Your task to perform on an android device: Open Maps and search for coffee Image 0: 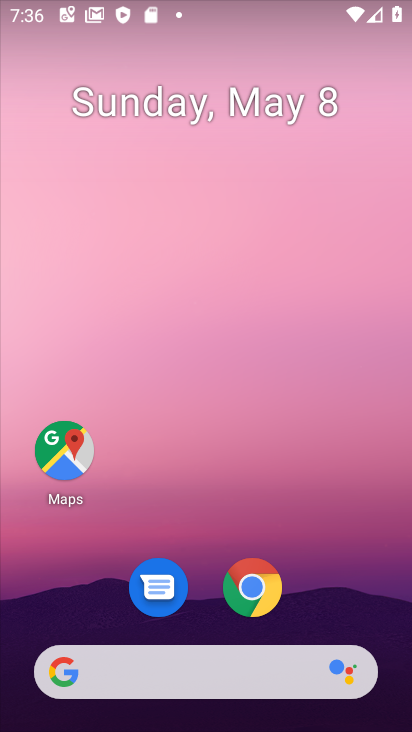
Step 0: click (64, 453)
Your task to perform on an android device: Open Maps and search for coffee Image 1: 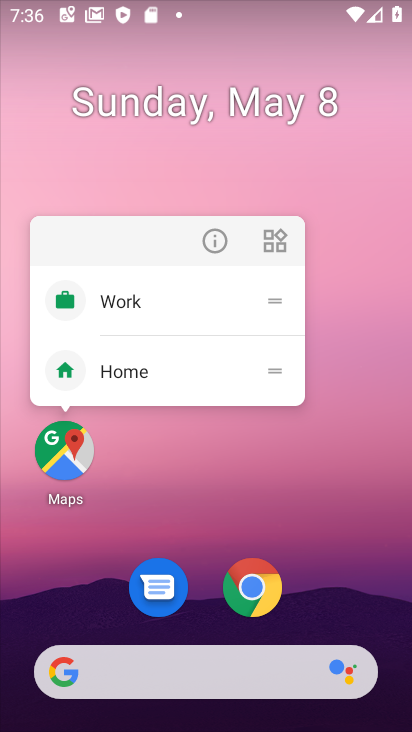
Step 1: click (60, 450)
Your task to perform on an android device: Open Maps and search for coffee Image 2: 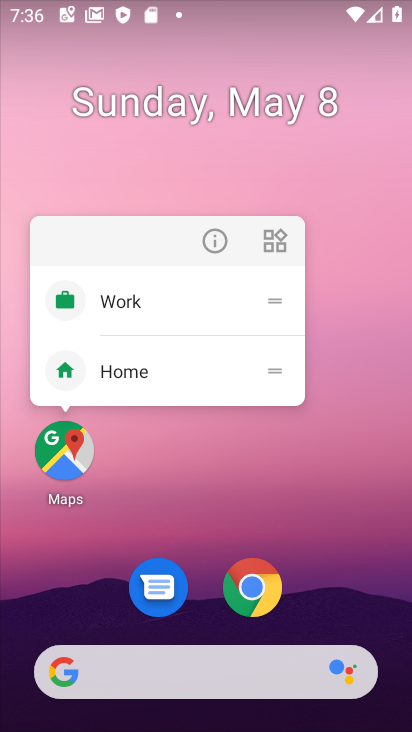
Step 2: click (65, 451)
Your task to perform on an android device: Open Maps and search for coffee Image 3: 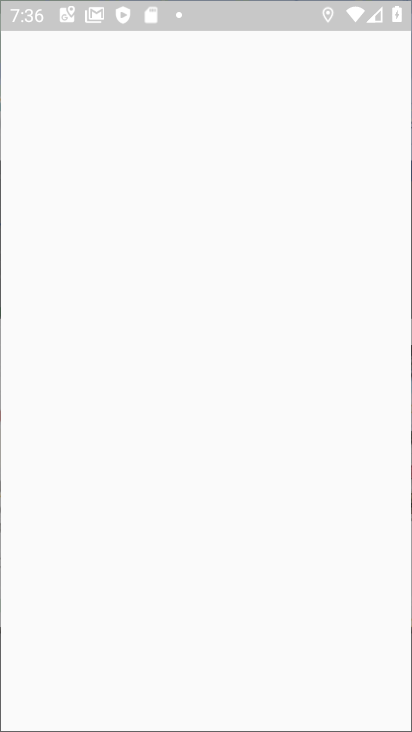
Step 3: click (310, 71)
Your task to perform on an android device: Open Maps and search for coffee Image 4: 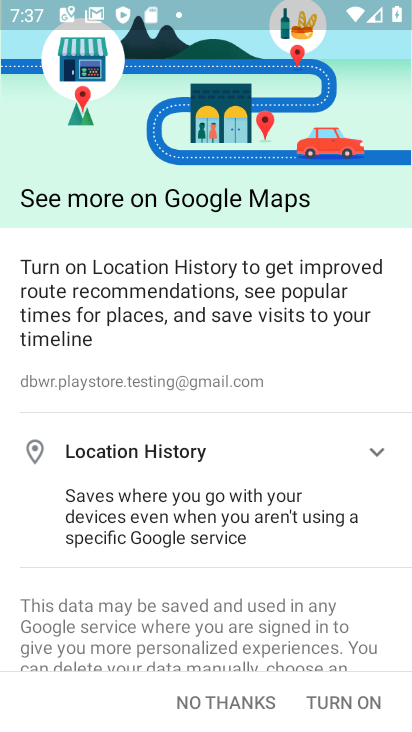
Step 4: click (245, 697)
Your task to perform on an android device: Open Maps and search for coffee Image 5: 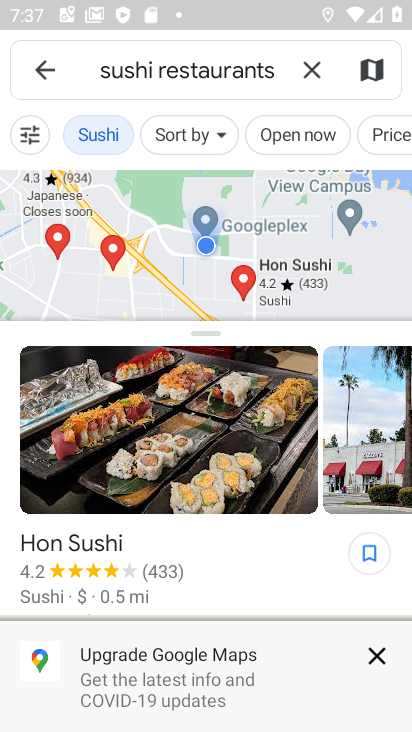
Step 5: click (312, 66)
Your task to perform on an android device: Open Maps and search for coffee Image 6: 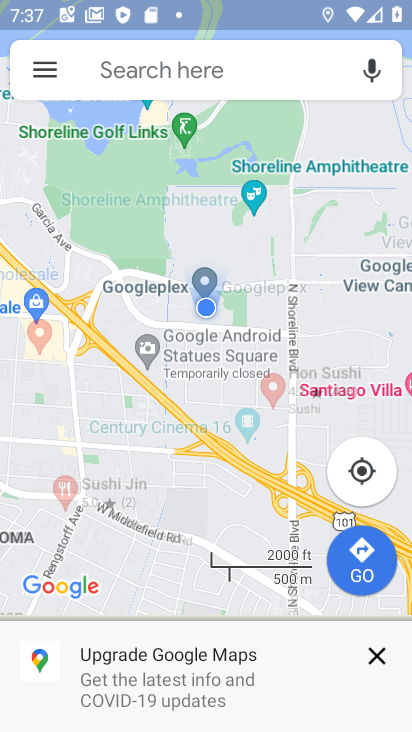
Step 6: click (213, 60)
Your task to perform on an android device: Open Maps and search for coffee Image 7: 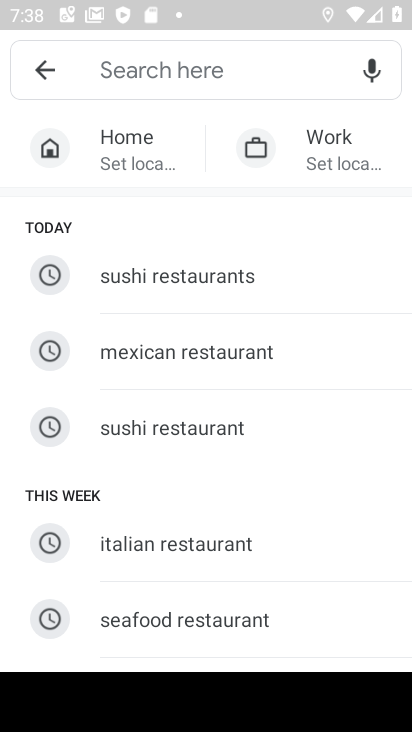
Step 7: type "coffee"
Your task to perform on an android device: Open Maps and search for coffee Image 8: 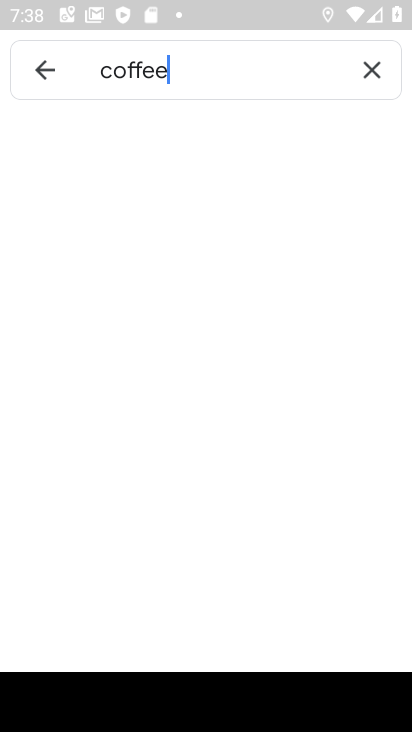
Step 8: type ""
Your task to perform on an android device: Open Maps and search for coffee Image 9: 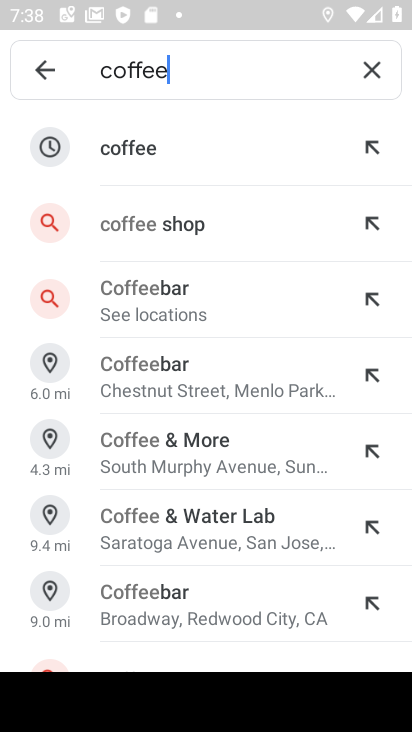
Step 9: click (105, 151)
Your task to perform on an android device: Open Maps and search for coffee Image 10: 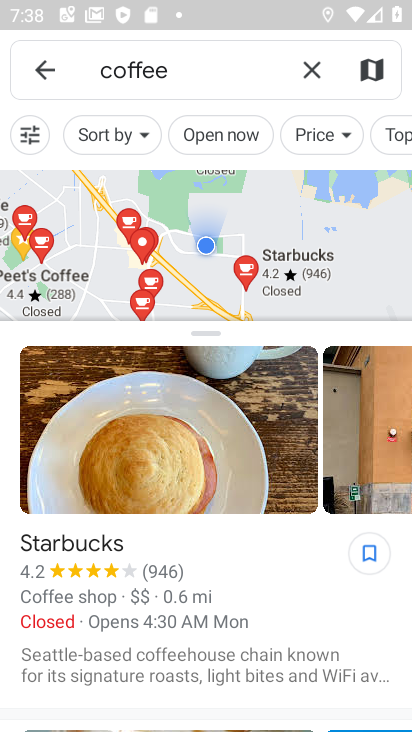
Step 10: task complete